Your task to perform on an android device: Open Amazon Image 0: 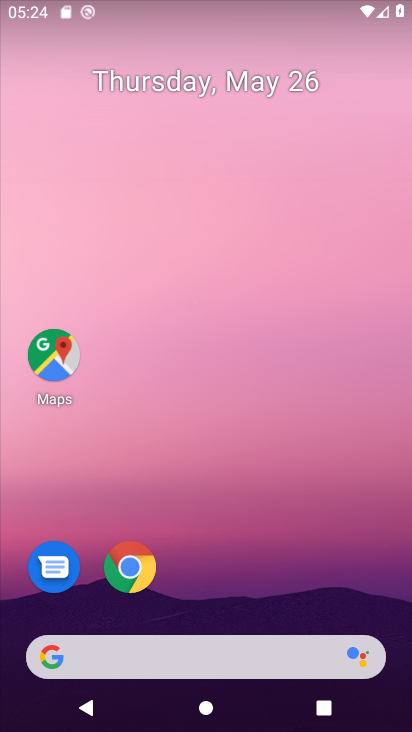
Step 0: press home button
Your task to perform on an android device: Open Amazon Image 1: 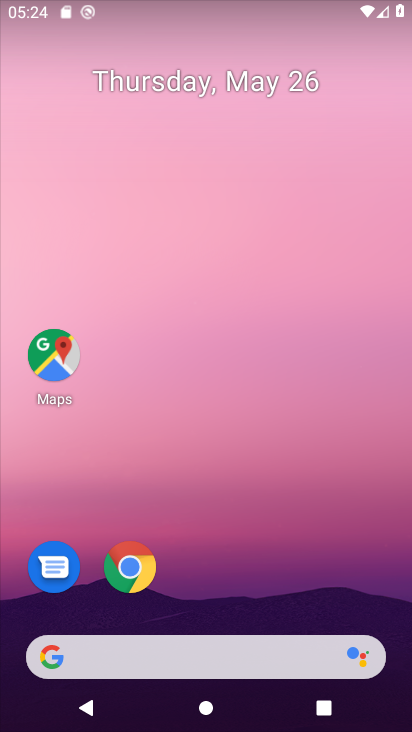
Step 1: drag from (286, 579) to (288, 274)
Your task to perform on an android device: Open Amazon Image 2: 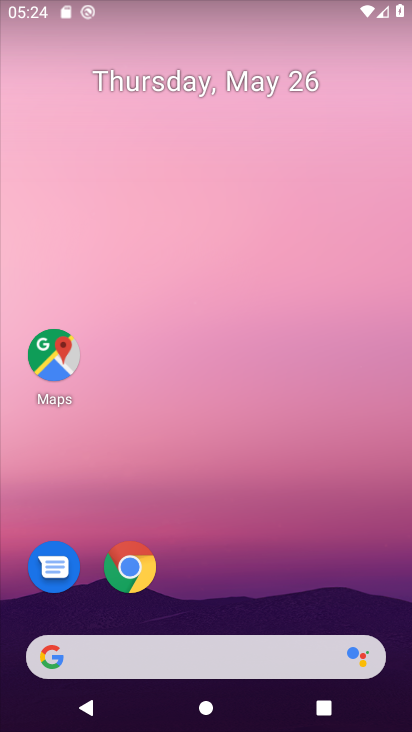
Step 2: drag from (271, 567) to (163, 11)
Your task to perform on an android device: Open Amazon Image 3: 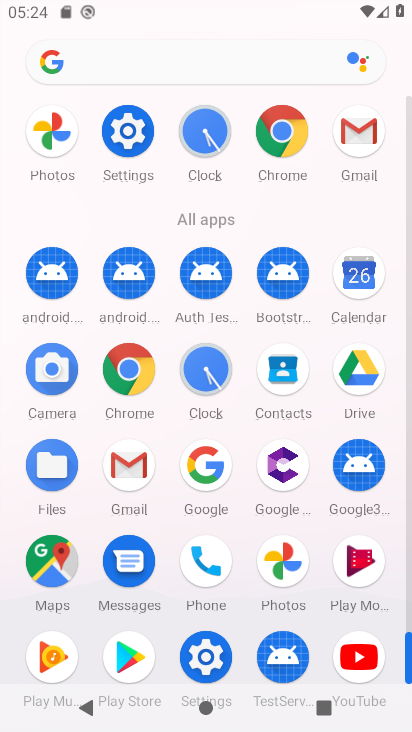
Step 3: click (206, 461)
Your task to perform on an android device: Open Amazon Image 4: 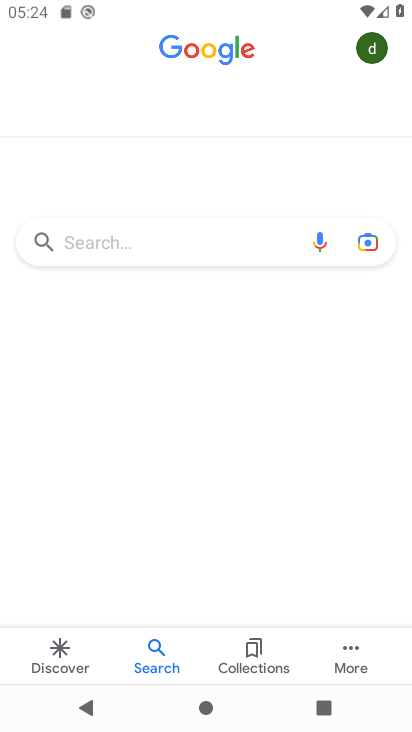
Step 4: click (181, 242)
Your task to perform on an android device: Open Amazon Image 5: 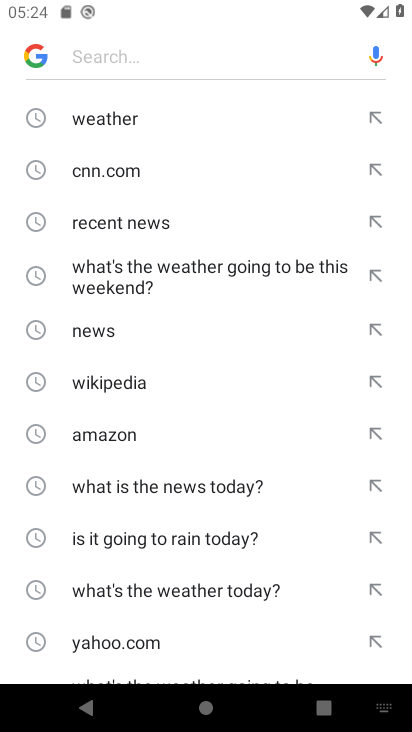
Step 5: click (100, 439)
Your task to perform on an android device: Open Amazon Image 6: 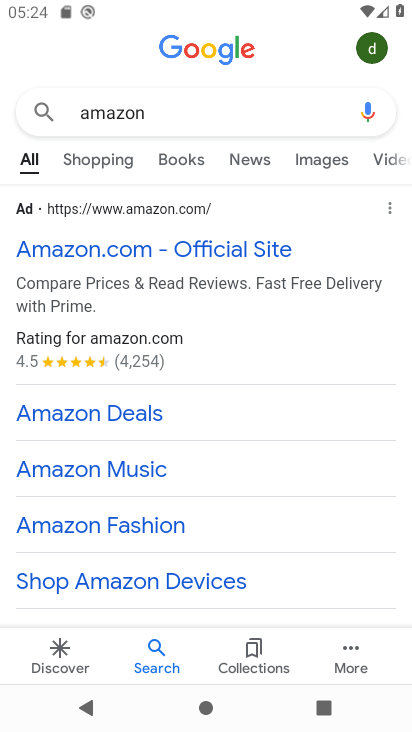
Step 6: drag from (299, 339) to (247, 0)
Your task to perform on an android device: Open Amazon Image 7: 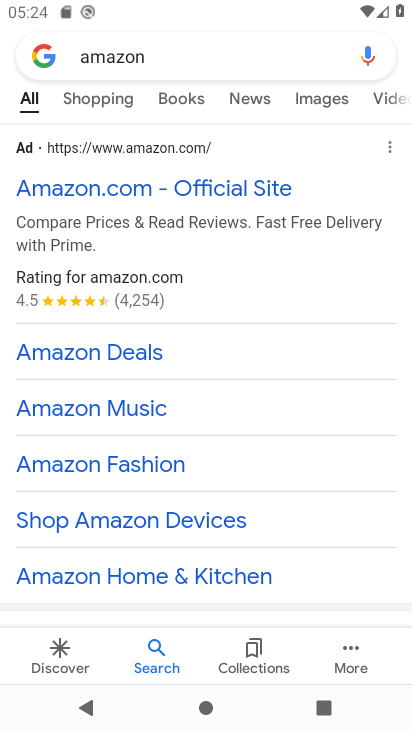
Step 7: drag from (275, 275) to (252, 2)
Your task to perform on an android device: Open Amazon Image 8: 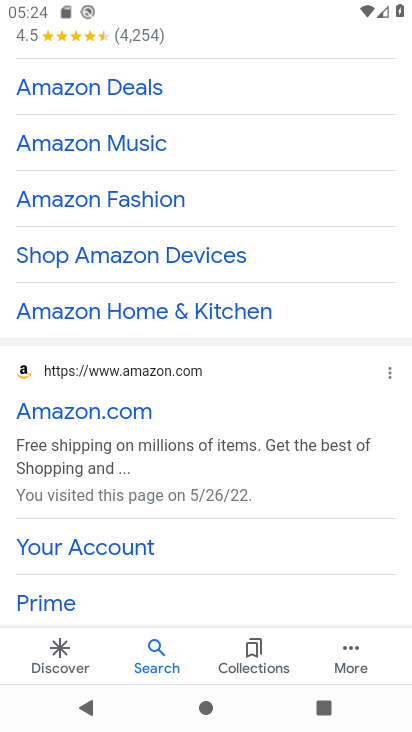
Step 8: click (80, 416)
Your task to perform on an android device: Open Amazon Image 9: 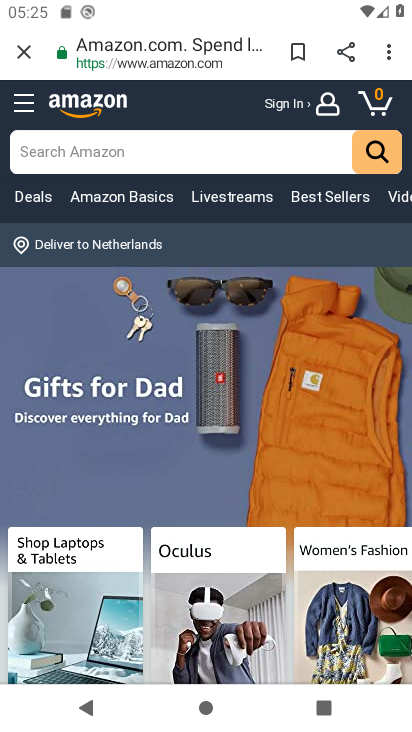
Step 9: task complete